Your task to perform on an android device: find photos in the google photos app Image 0: 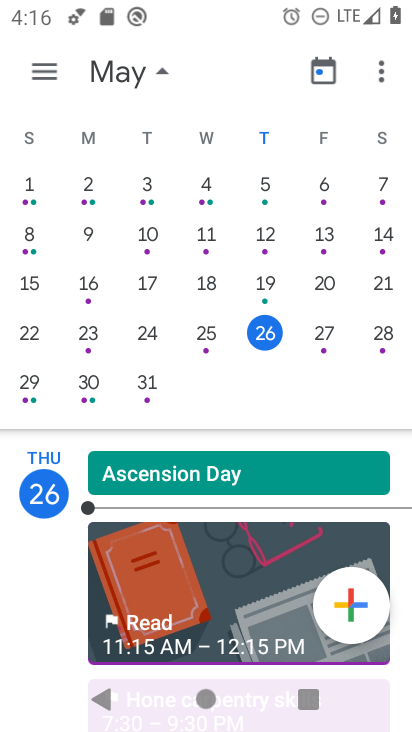
Step 0: press home button
Your task to perform on an android device: find photos in the google photos app Image 1: 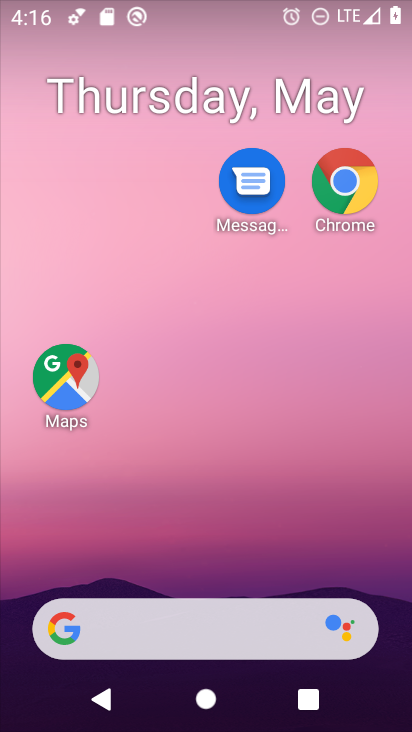
Step 1: drag from (196, 577) to (284, 18)
Your task to perform on an android device: find photos in the google photos app Image 2: 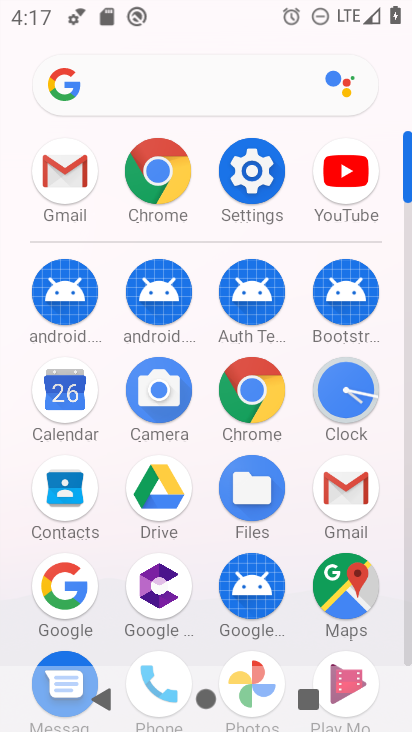
Step 2: click (257, 659)
Your task to perform on an android device: find photos in the google photos app Image 3: 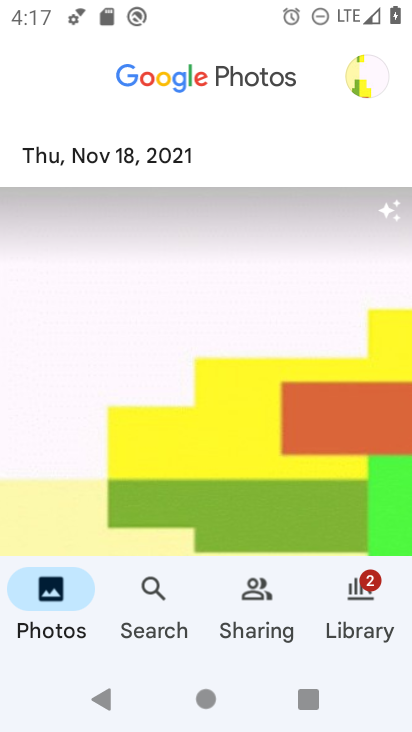
Step 3: task complete